Your task to perform on an android device: Find coffee shops on Maps Image 0: 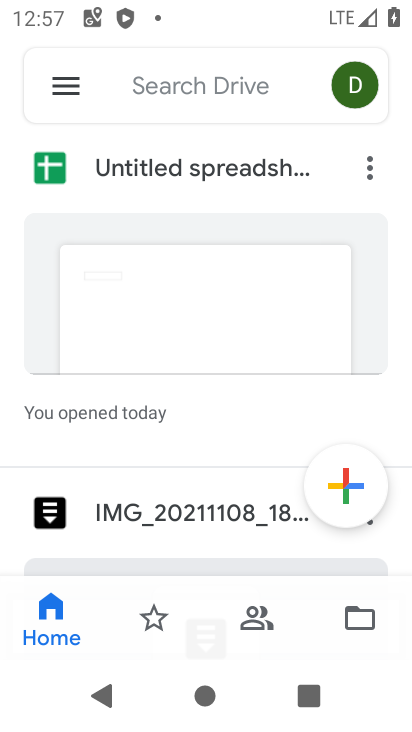
Step 0: press home button
Your task to perform on an android device: Find coffee shops on Maps Image 1: 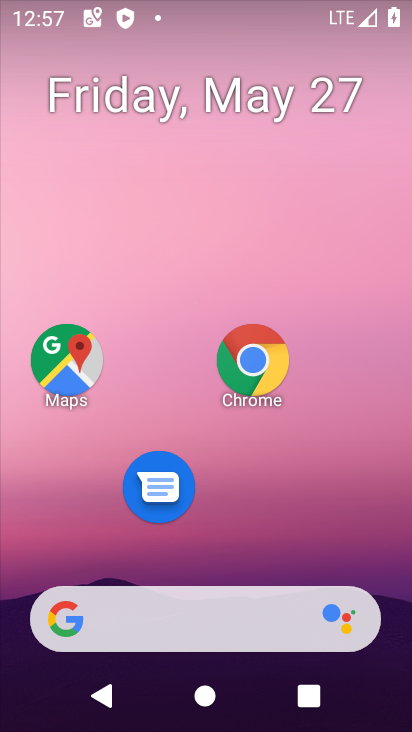
Step 1: click (80, 366)
Your task to perform on an android device: Find coffee shops on Maps Image 2: 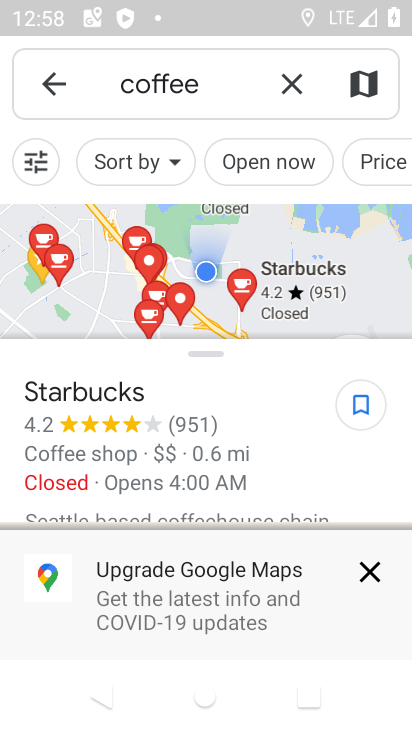
Step 2: task complete